Your task to perform on an android device: open app "Messenger Lite" (install if not already installed) and enter user name: "cataclysmic@outlook.com" and password: "victoriously" Image 0: 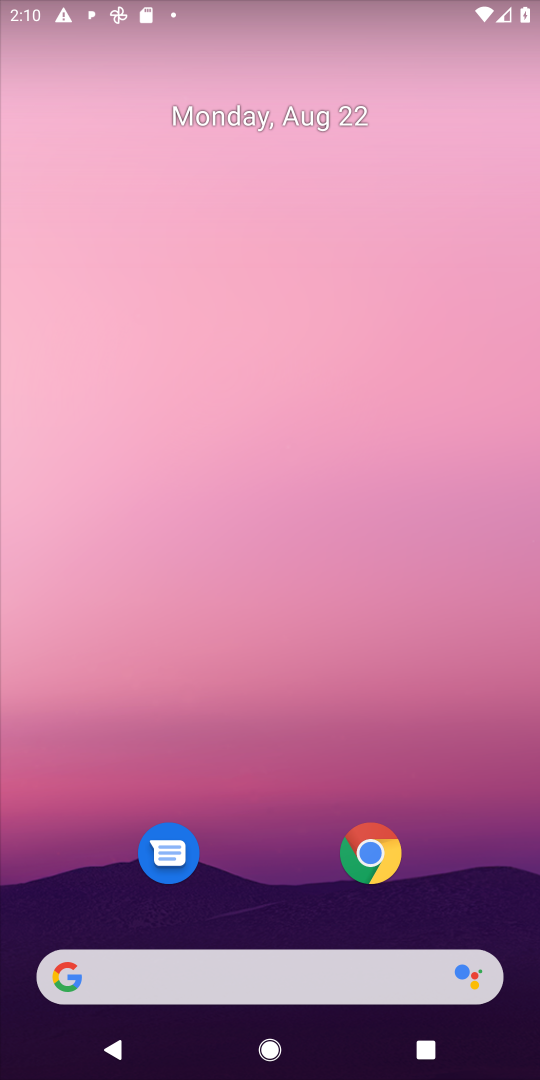
Step 0: drag from (302, 806) to (265, 228)
Your task to perform on an android device: open app "Messenger Lite" (install if not already installed) and enter user name: "cataclysmic@outlook.com" and password: "victoriously" Image 1: 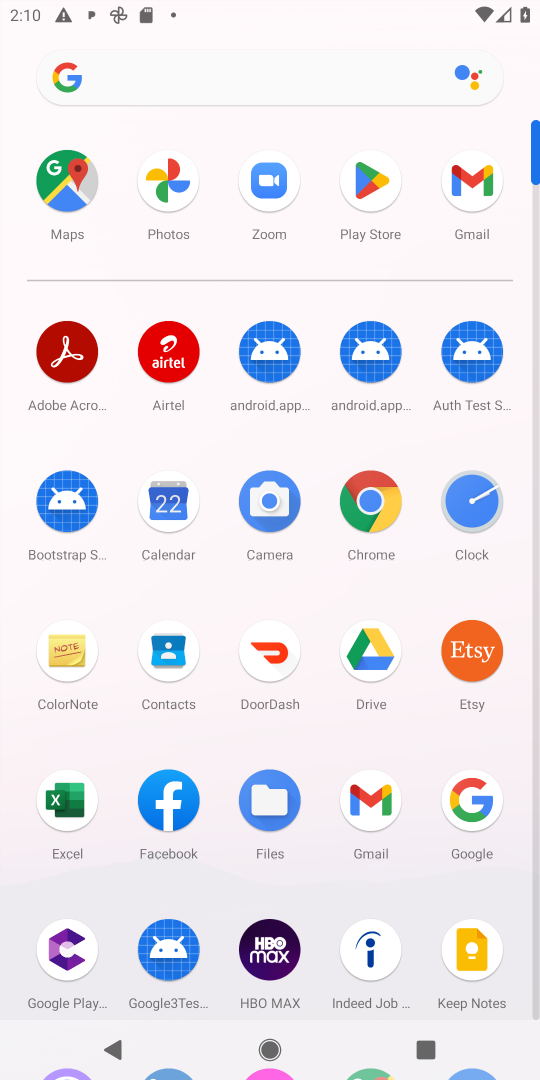
Step 1: click (371, 180)
Your task to perform on an android device: open app "Messenger Lite" (install if not already installed) and enter user name: "cataclysmic@outlook.com" and password: "victoriously" Image 2: 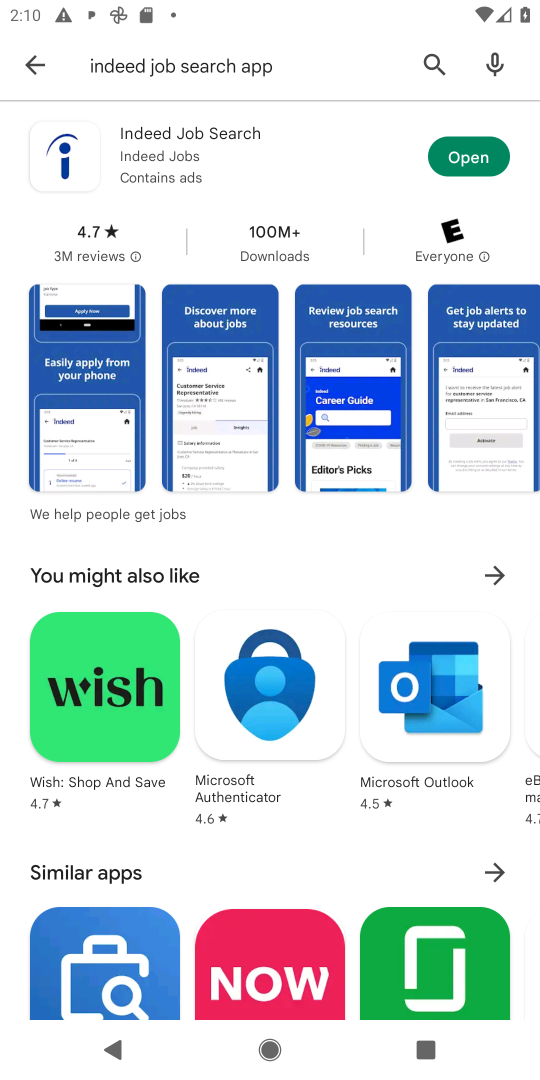
Step 2: click (23, 61)
Your task to perform on an android device: open app "Messenger Lite" (install if not already installed) and enter user name: "cataclysmic@outlook.com" and password: "victoriously" Image 3: 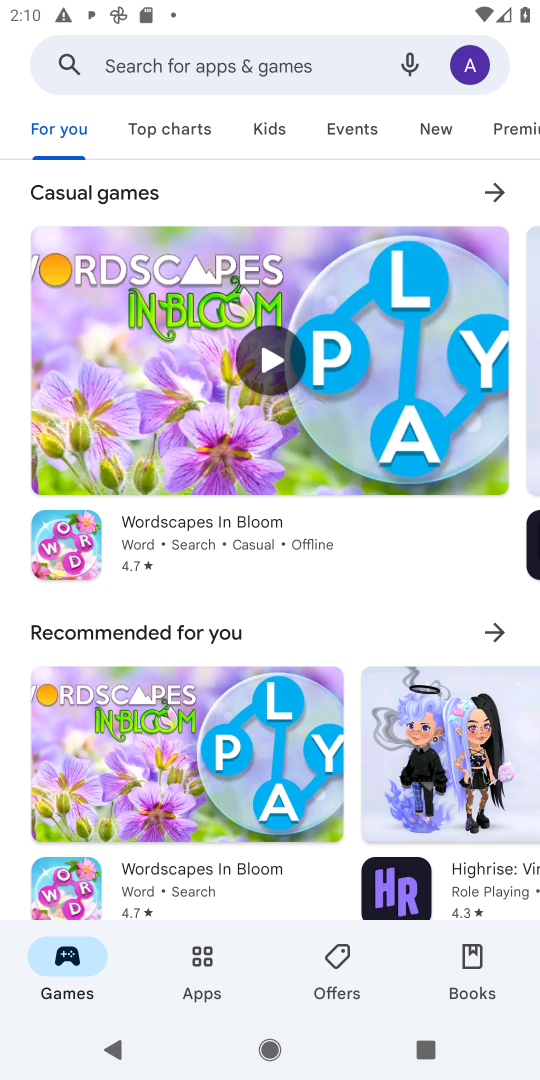
Step 3: click (234, 52)
Your task to perform on an android device: open app "Messenger Lite" (install if not already installed) and enter user name: "cataclysmic@outlook.com" and password: "victoriously" Image 4: 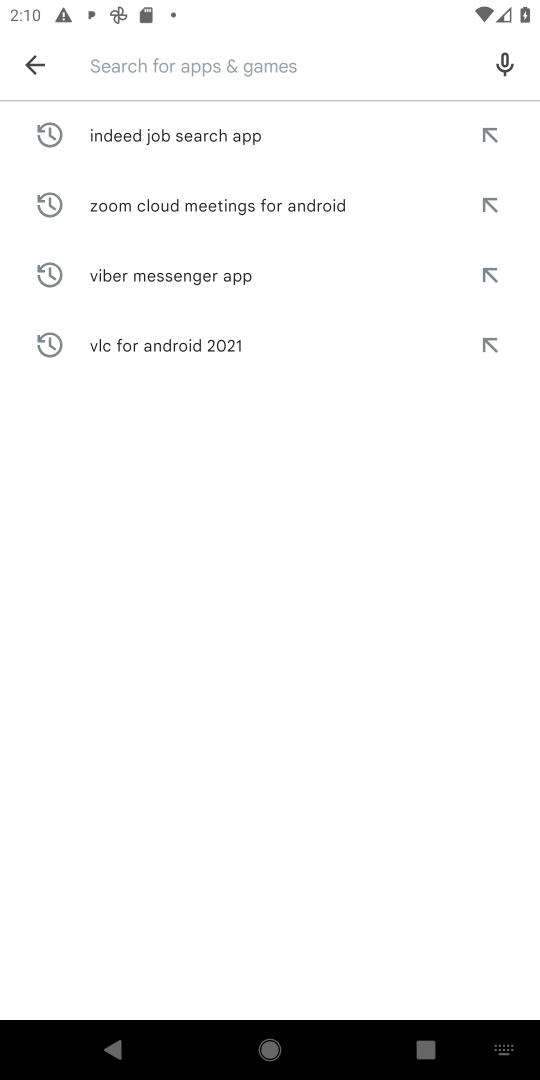
Step 4: type "Messenger Lite "
Your task to perform on an android device: open app "Messenger Lite" (install if not already installed) and enter user name: "cataclysmic@outlook.com" and password: "victoriously" Image 5: 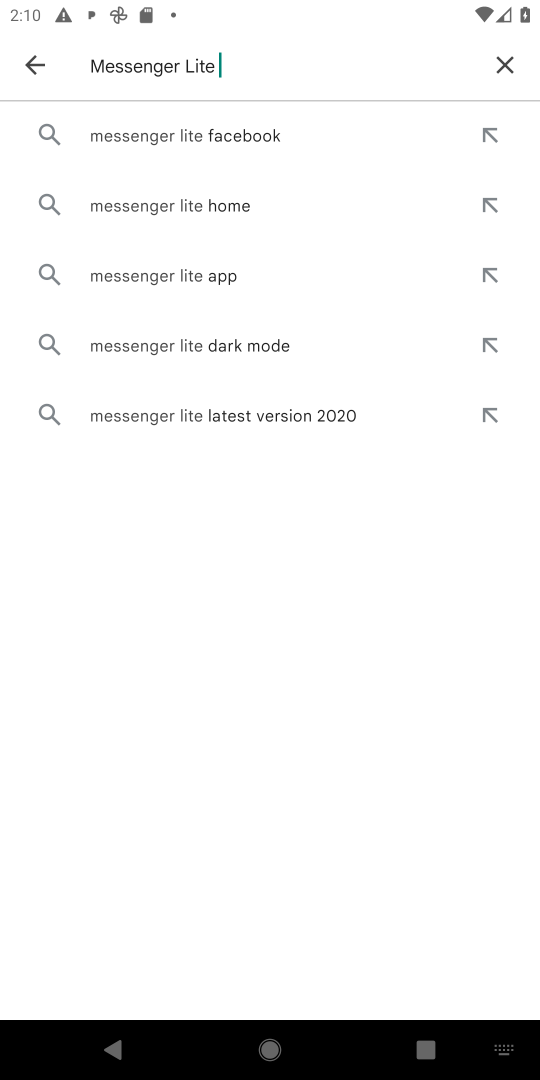
Step 5: click (188, 137)
Your task to perform on an android device: open app "Messenger Lite" (install if not already installed) and enter user name: "cataclysmic@outlook.com" and password: "victoriously" Image 6: 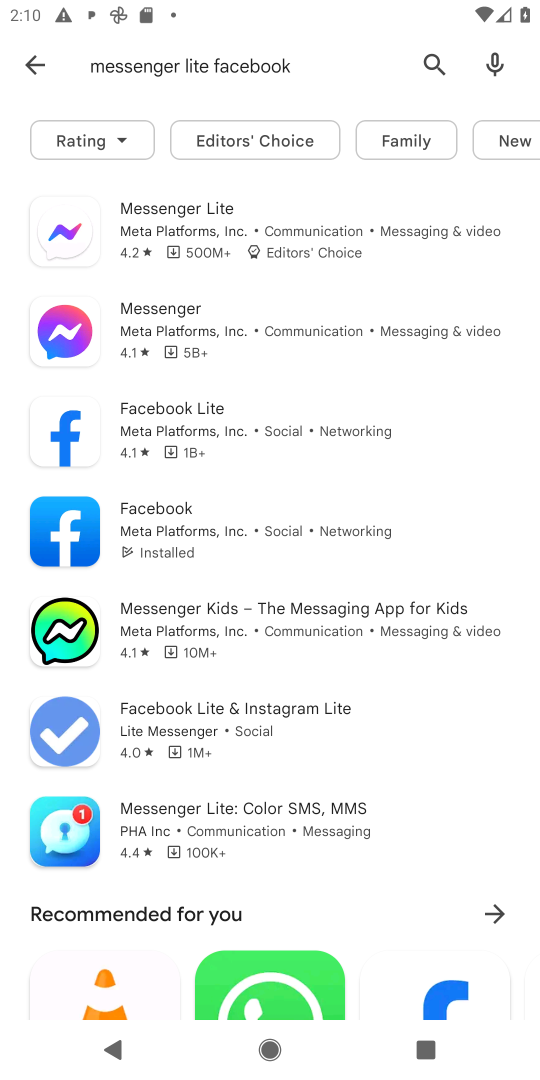
Step 6: click (232, 244)
Your task to perform on an android device: open app "Messenger Lite" (install if not already installed) and enter user name: "cataclysmic@outlook.com" and password: "victoriously" Image 7: 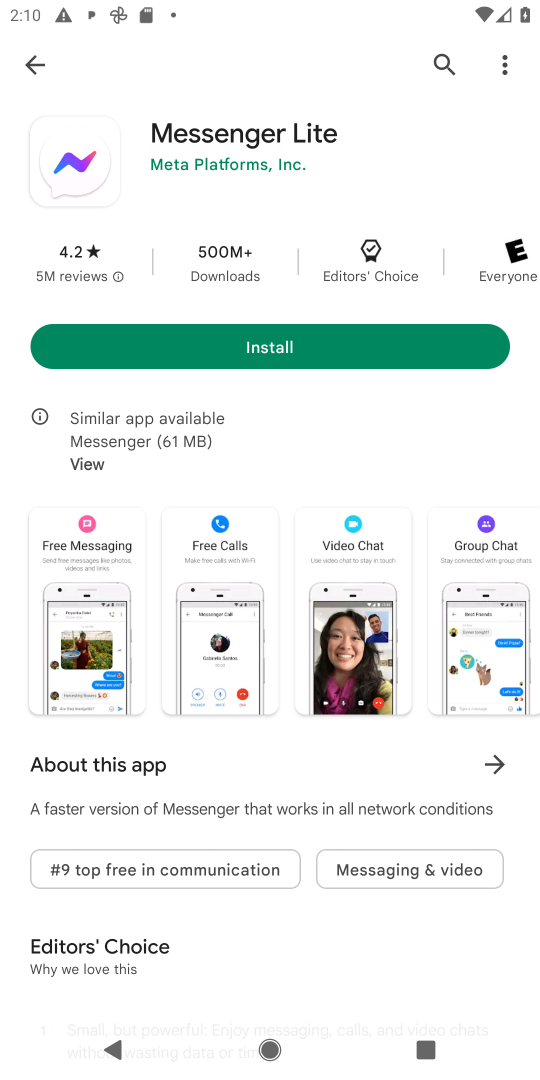
Step 7: click (309, 338)
Your task to perform on an android device: open app "Messenger Lite" (install if not already installed) and enter user name: "cataclysmic@outlook.com" and password: "victoriously" Image 8: 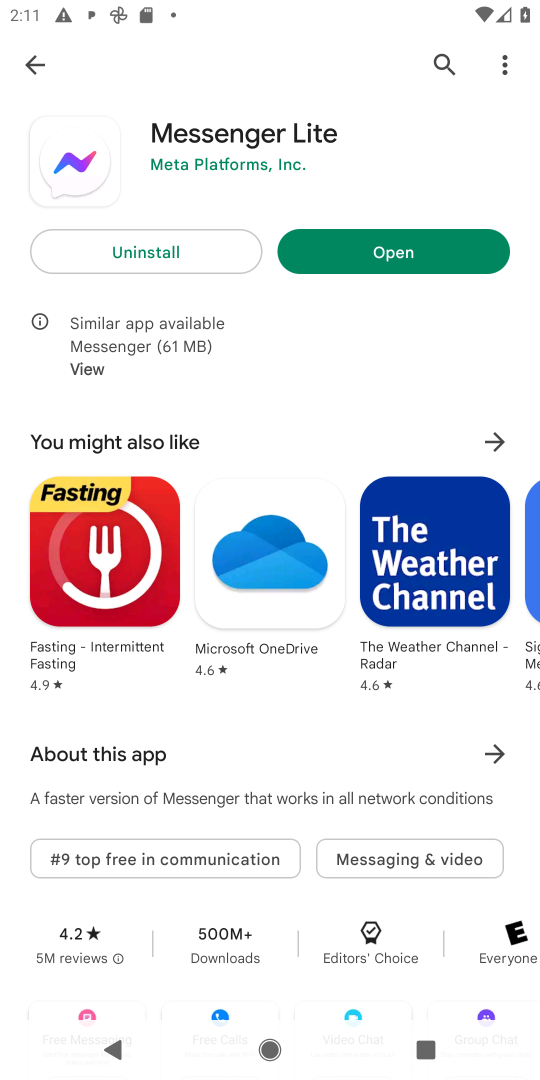
Step 8: click (381, 234)
Your task to perform on an android device: open app "Messenger Lite" (install if not already installed) and enter user name: "cataclysmic@outlook.com" and password: "victoriously" Image 9: 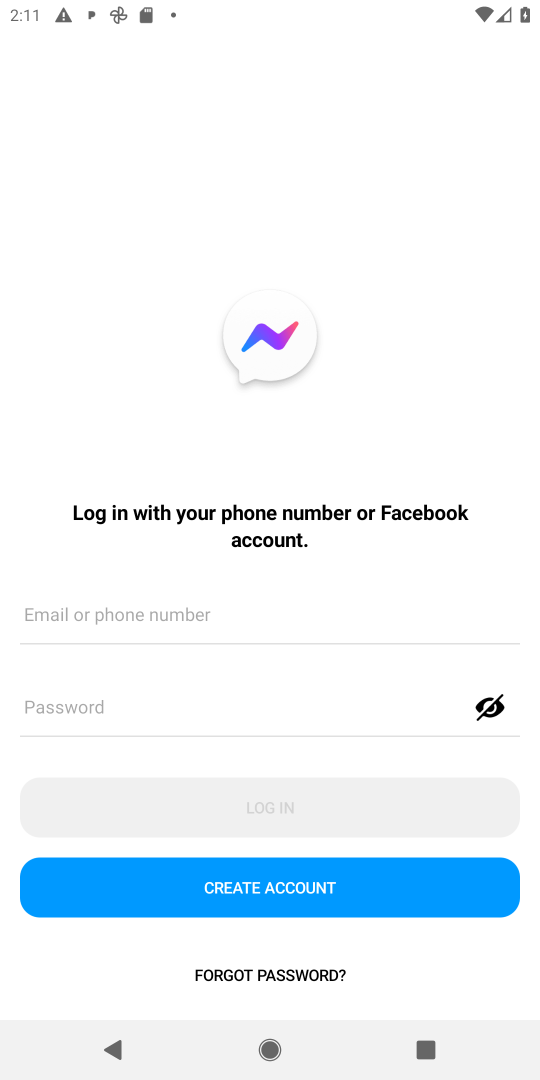
Step 9: task complete